Your task to perform on an android device: Open the calendar app, open the side menu, and click the "Day" option Image 0: 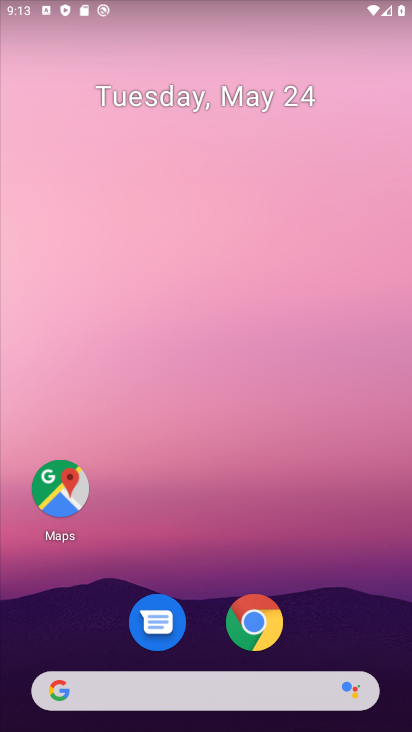
Step 0: drag from (234, 727) to (388, 204)
Your task to perform on an android device: Open the calendar app, open the side menu, and click the "Day" option Image 1: 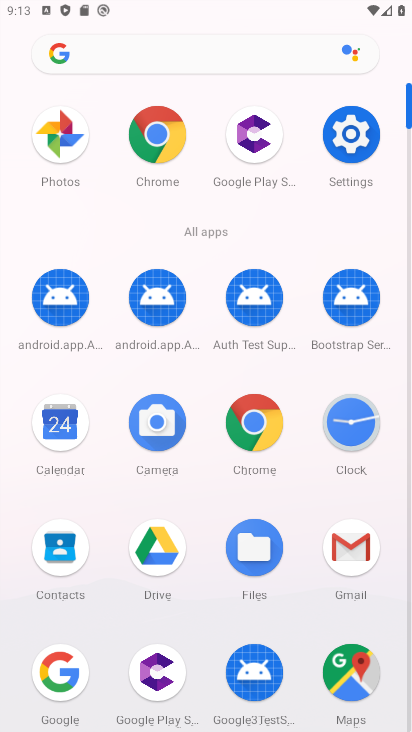
Step 1: click (71, 447)
Your task to perform on an android device: Open the calendar app, open the side menu, and click the "Day" option Image 2: 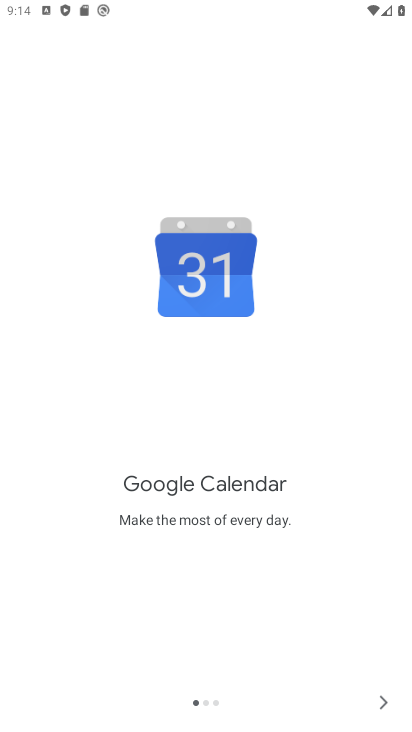
Step 2: click (374, 710)
Your task to perform on an android device: Open the calendar app, open the side menu, and click the "Day" option Image 3: 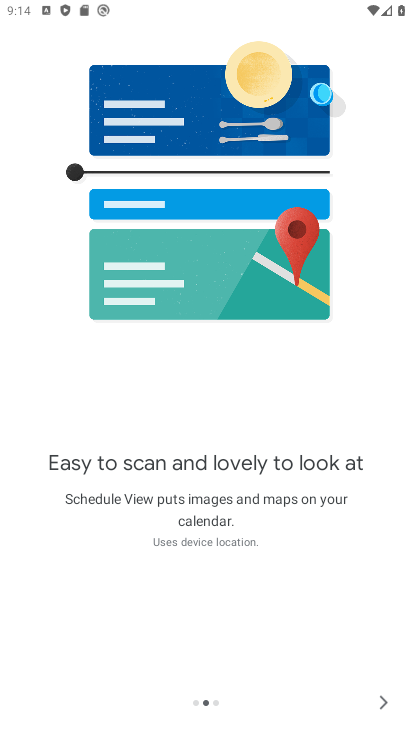
Step 3: click (371, 704)
Your task to perform on an android device: Open the calendar app, open the side menu, and click the "Day" option Image 4: 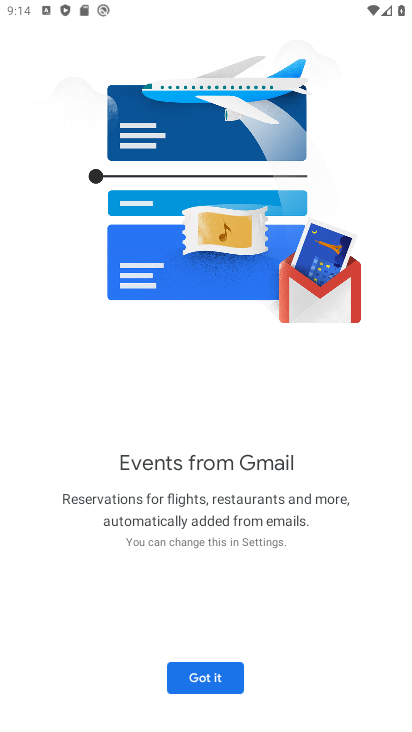
Step 4: click (229, 678)
Your task to perform on an android device: Open the calendar app, open the side menu, and click the "Day" option Image 5: 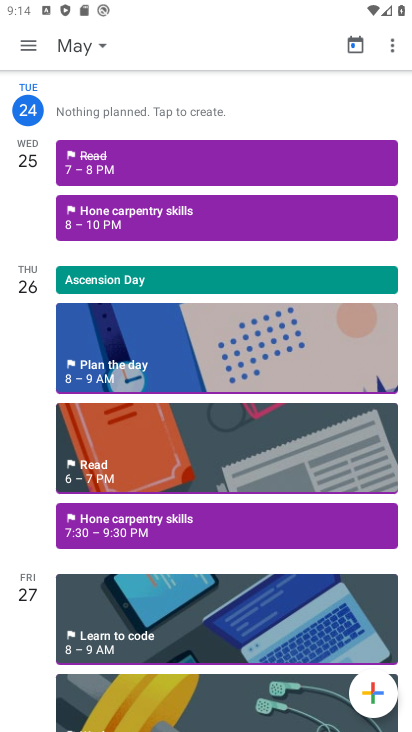
Step 5: click (43, 50)
Your task to perform on an android device: Open the calendar app, open the side menu, and click the "Day" option Image 6: 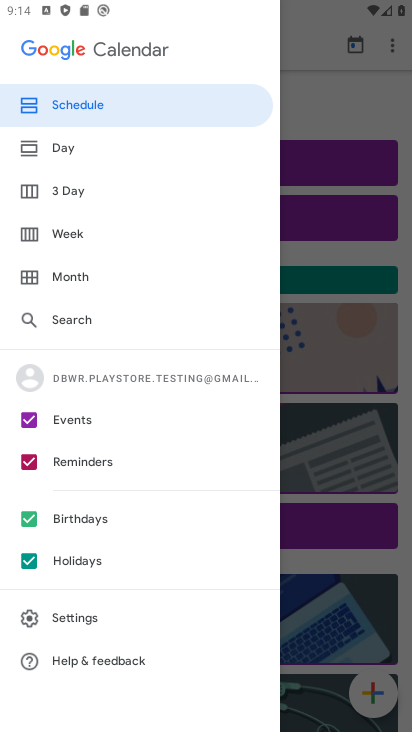
Step 6: click (79, 158)
Your task to perform on an android device: Open the calendar app, open the side menu, and click the "Day" option Image 7: 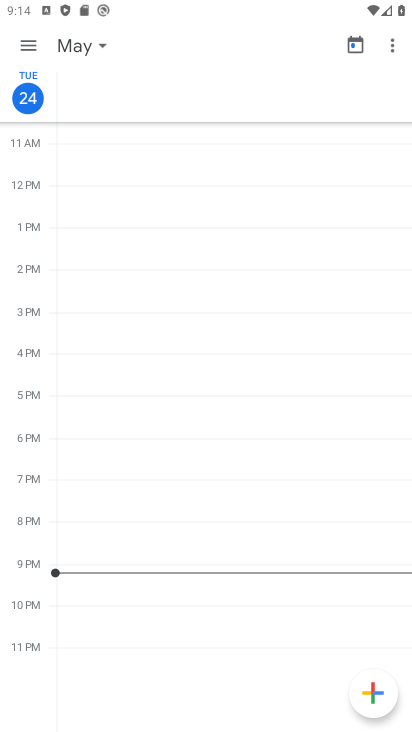
Step 7: task complete